Your task to perform on an android device: snooze an email in the gmail app Image 0: 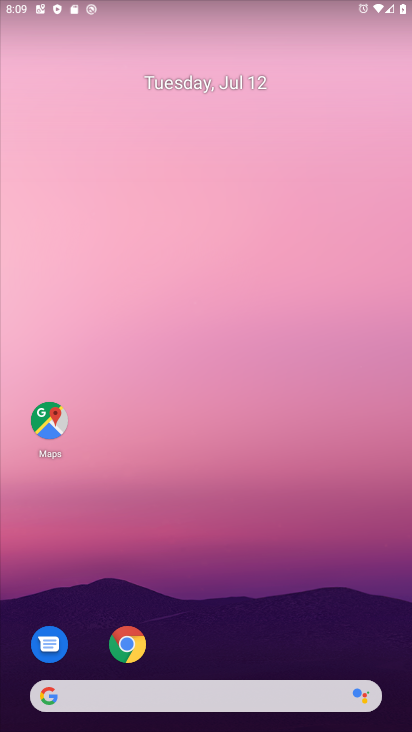
Step 0: drag from (223, 685) to (340, 175)
Your task to perform on an android device: snooze an email in the gmail app Image 1: 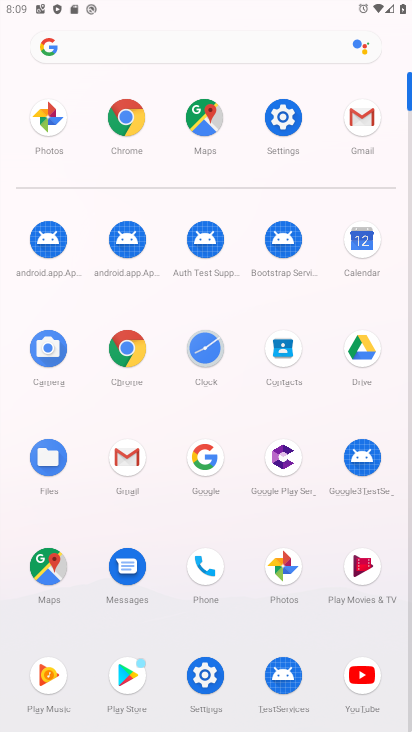
Step 1: click (126, 466)
Your task to perform on an android device: snooze an email in the gmail app Image 2: 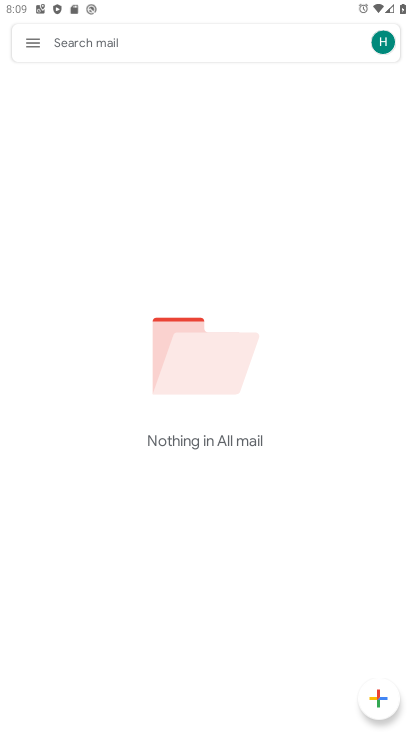
Step 2: click (28, 46)
Your task to perform on an android device: snooze an email in the gmail app Image 3: 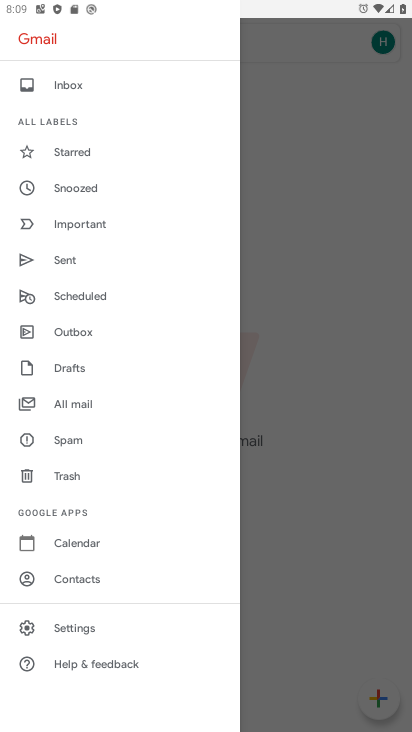
Step 3: click (84, 192)
Your task to perform on an android device: snooze an email in the gmail app Image 4: 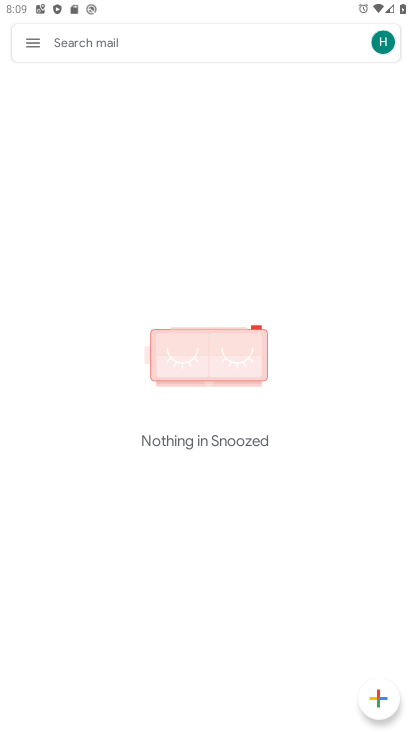
Step 4: task complete